Your task to perform on an android device: toggle priority inbox in the gmail app Image 0: 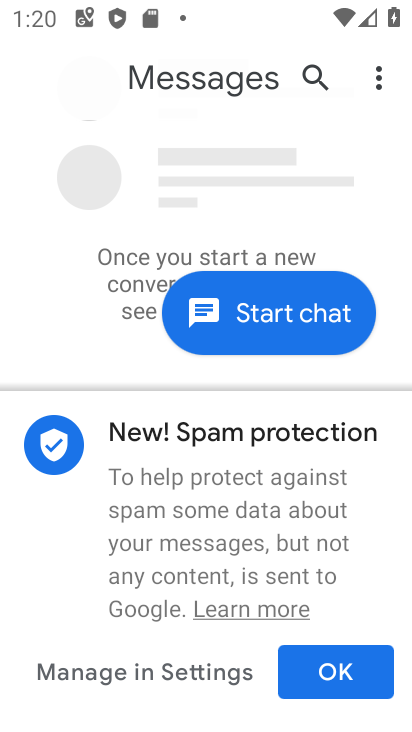
Step 0: press home button
Your task to perform on an android device: toggle priority inbox in the gmail app Image 1: 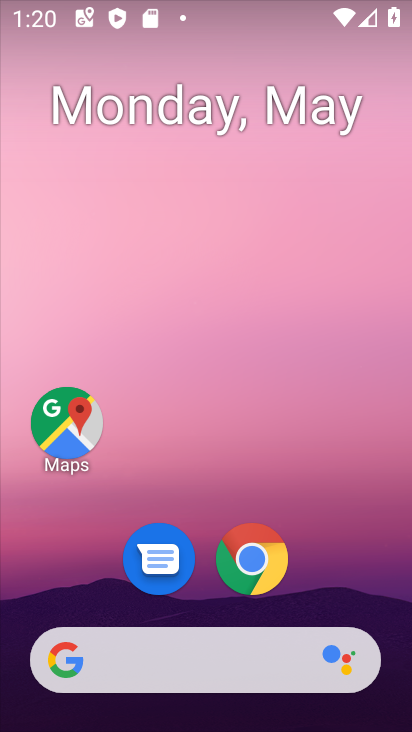
Step 1: click (229, 563)
Your task to perform on an android device: toggle priority inbox in the gmail app Image 2: 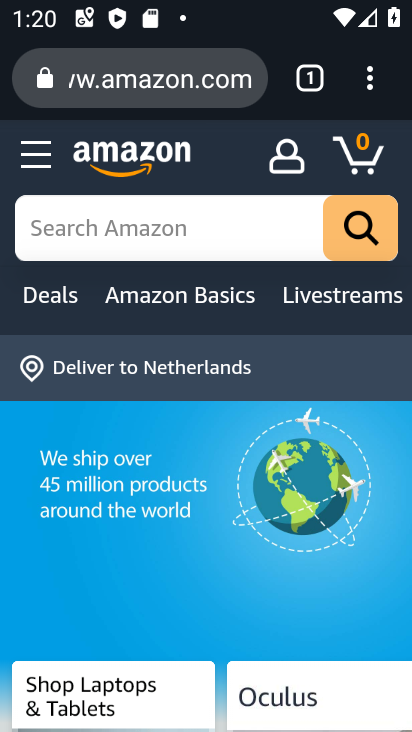
Step 2: press home button
Your task to perform on an android device: toggle priority inbox in the gmail app Image 3: 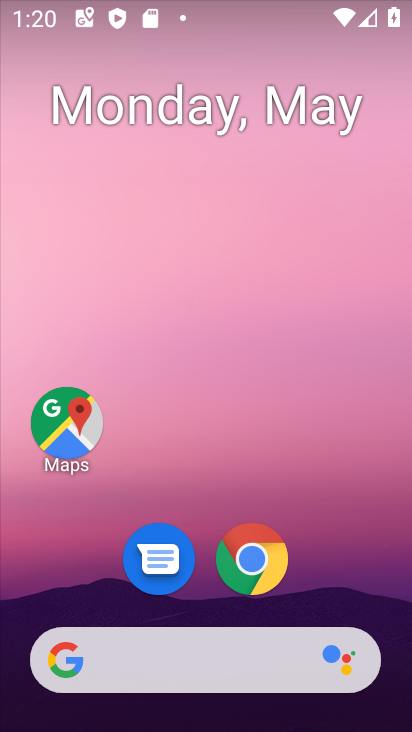
Step 3: drag from (245, 716) to (241, 103)
Your task to perform on an android device: toggle priority inbox in the gmail app Image 4: 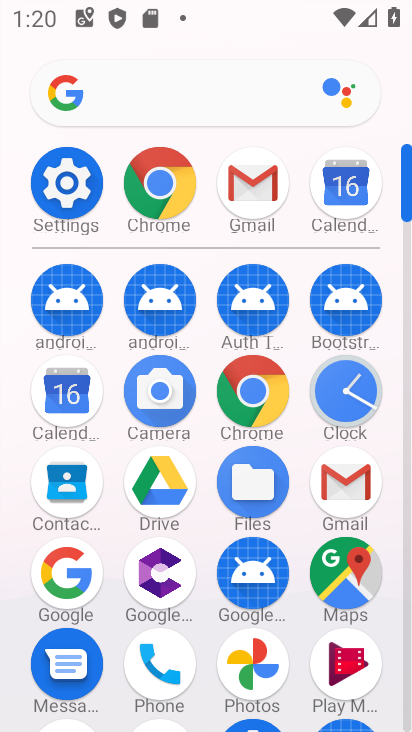
Step 4: click (338, 480)
Your task to perform on an android device: toggle priority inbox in the gmail app Image 5: 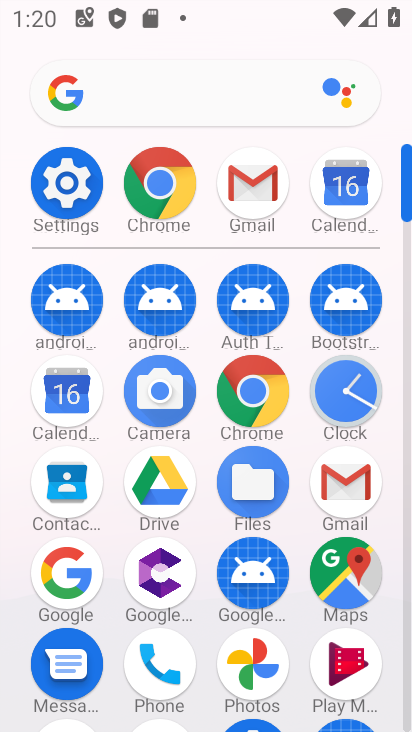
Step 5: click (338, 480)
Your task to perform on an android device: toggle priority inbox in the gmail app Image 6: 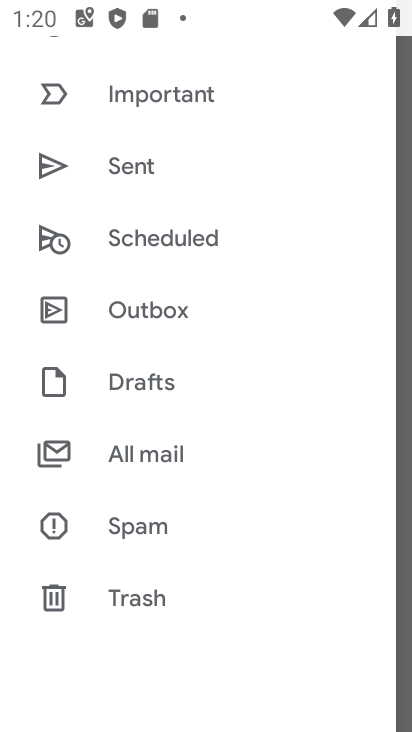
Step 6: drag from (233, 601) to (255, 24)
Your task to perform on an android device: toggle priority inbox in the gmail app Image 7: 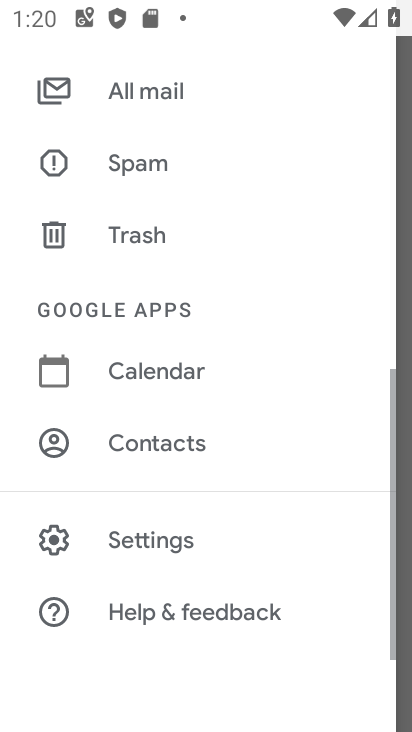
Step 7: click (175, 537)
Your task to perform on an android device: toggle priority inbox in the gmail app Image 8: 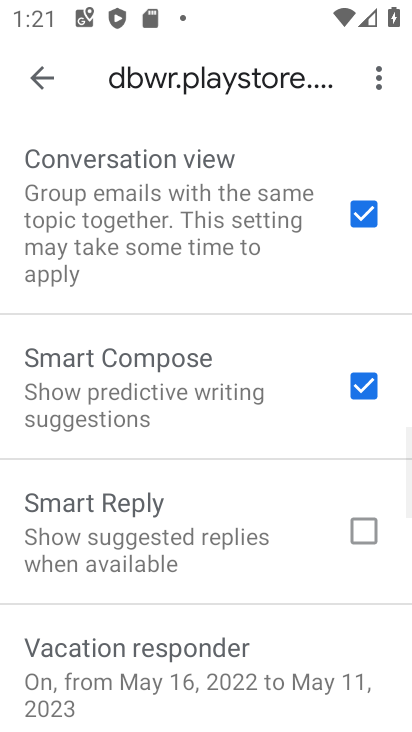
Step 8: drag from (233, 630) to (279, 213)
Your task to perform on an android device: toggle priority inbox in the gmail app Image 9: 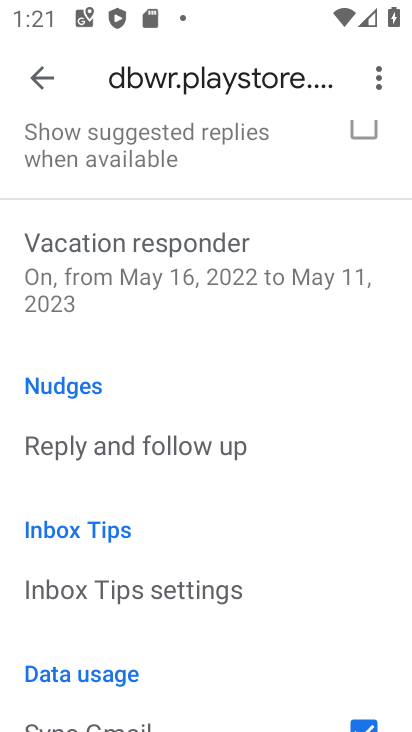
Step 9: drag from (222, 645) to (265, 144)
Your task to perform on an android device: toggle priority inbox in the gmail app Image 10: 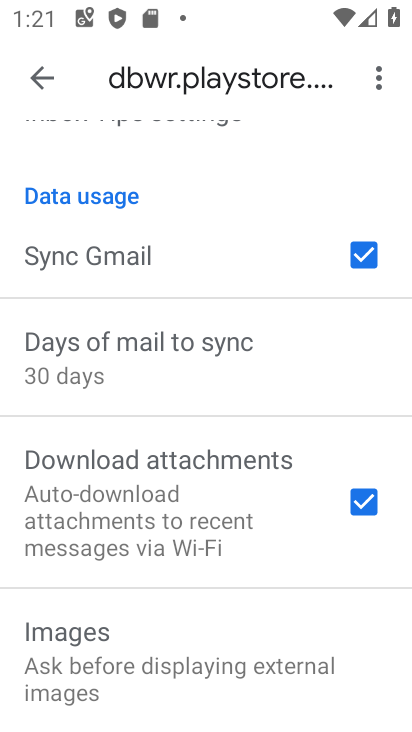
Step 10: drag from (224, 166) to (151, 681)
Your task to perform on an android device: toggle priority inbox in the gmail app Image 11: 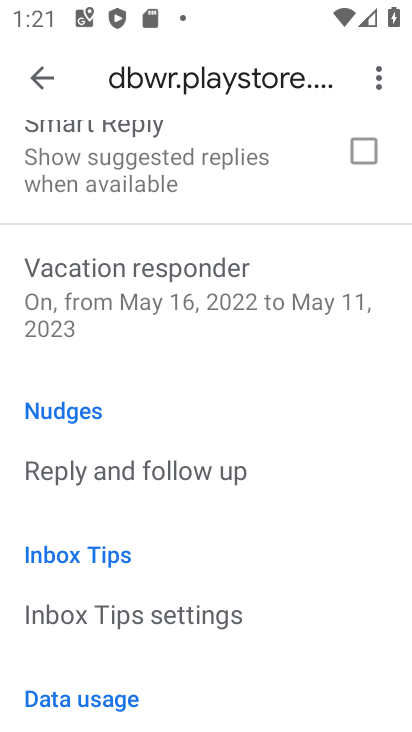
Step 11: drag from (285, 224) to (283, 727)
Your task to perform on an android device: toggle priority inbox in the gmail app Image 12: 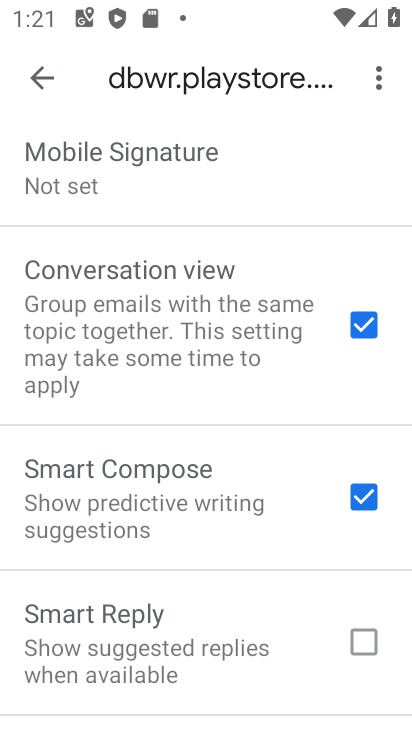
Step 12: drag from (322, 128) to (239, 697)
Your task to perform on an android device: toggle priority inbox in the gmail app Image 13: 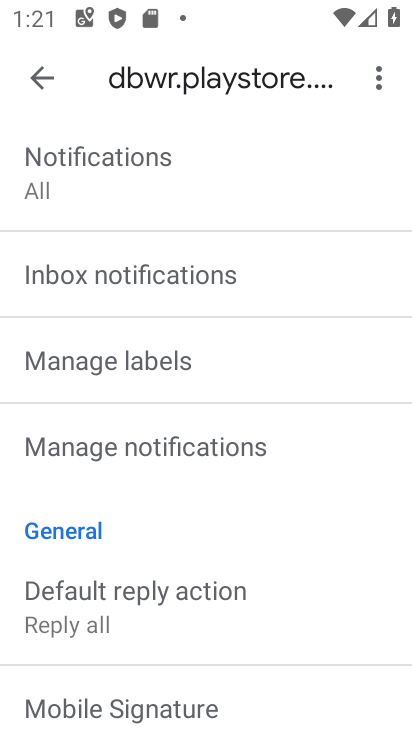
Step 13: drag from (359, 177) to (316, 686)
Your task to perform on an android device: toggle priority inbox in the gmail app Image 14: 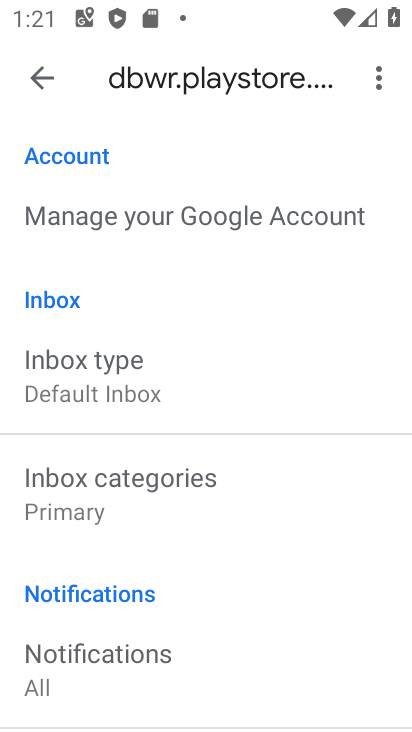
Step 14: click (89, 379)
Your task to perform on an android device: toggle priority inbox in the gmail app Image 15: 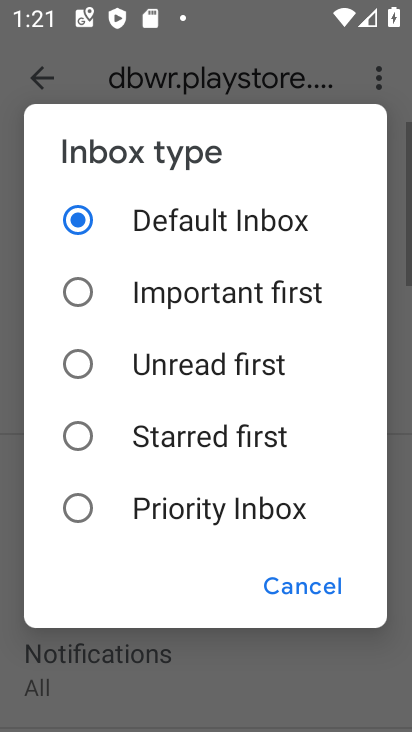
Step 15: click (180, 505)
Your task to perform on an android device: toggle priority inbox in the gmail app Image 16: 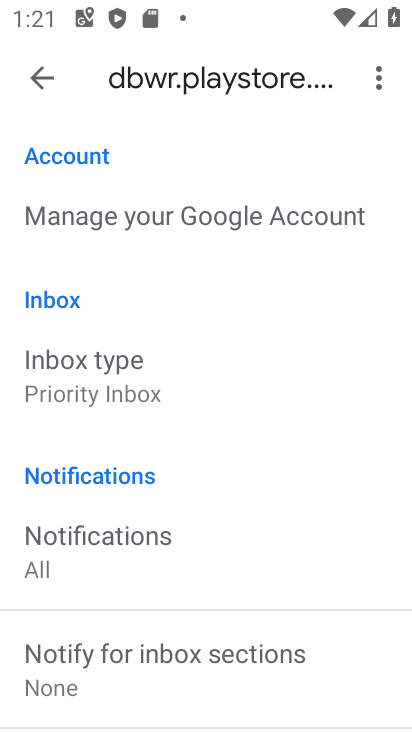
Step 16: task complete